Your task to perform on an android device: Is it going to rain tomorrow? Image 0: 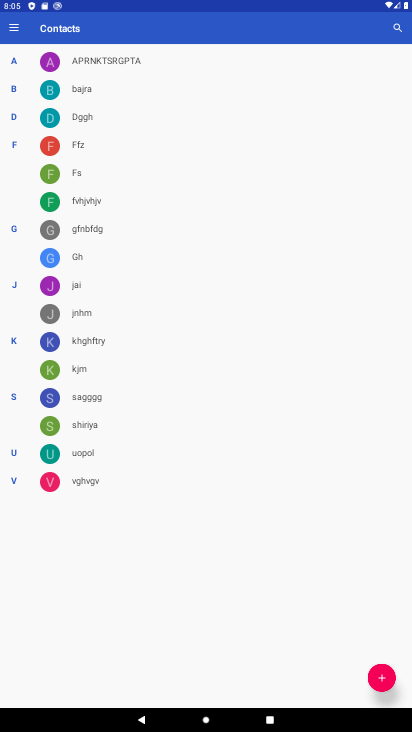
Step 0: press home button
Your task to perform on an android device: Is it going to rain tomorrow? Image 1: 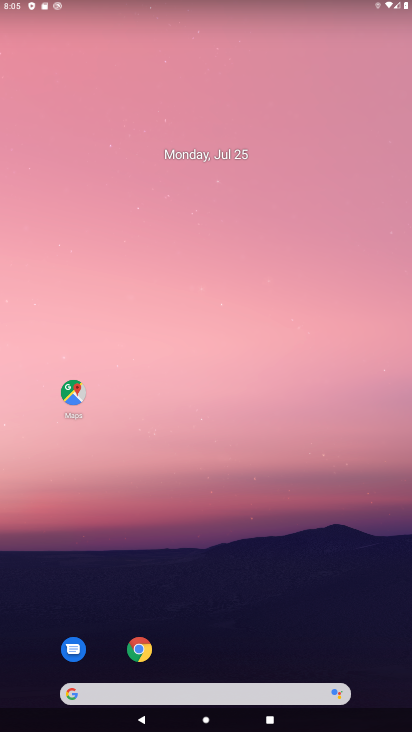
Step 1: drag from (223, 641) to (231, 284)
Your task to perform on an android device: Is it going to rain tomorrow? Image 2: 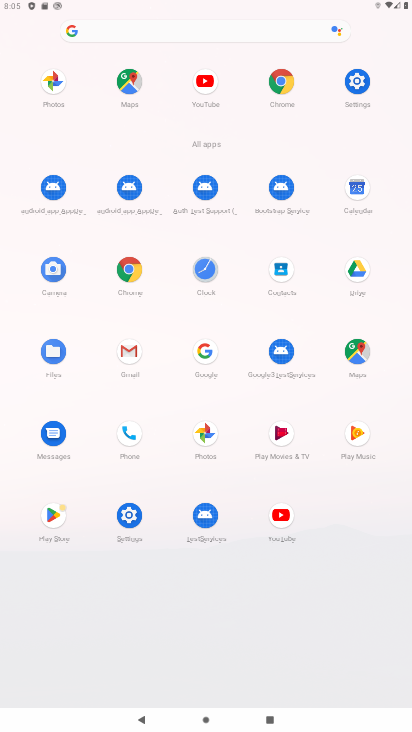
Step 2: click (196, 347)
Your task to perform on an android device: Is it going to rain tomorrow? Image 3: 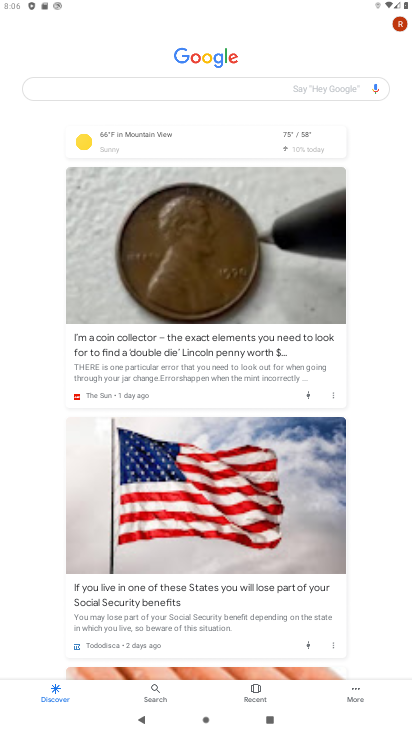
Step 3: click (172, 135)
Your task to perform on an android device: Is it going to rain tomorrow? Image 4: 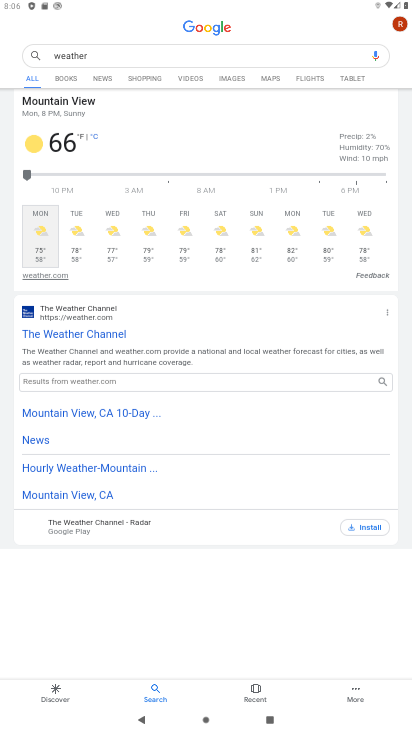
Step 4: task complete